Your task to perform on an android device: turn smart compose on in the gmail app Image 0: 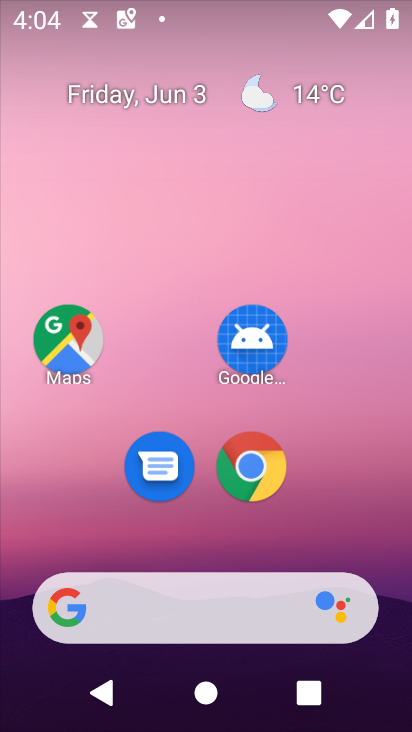
Step 0: drag from (335, 505) to (340, 53)
Your task to perform on an android device: turn smart compose on in the gmail app Image 1: 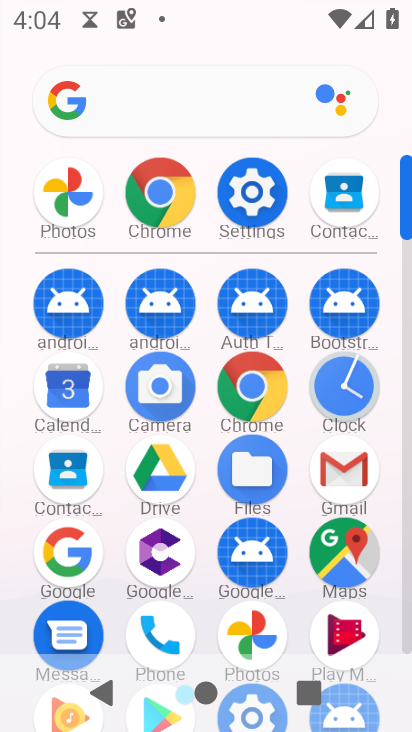
Step 1: click (352, 488)
Your task to perform on an android device: turn smart compose on in the gmail app Image 2: 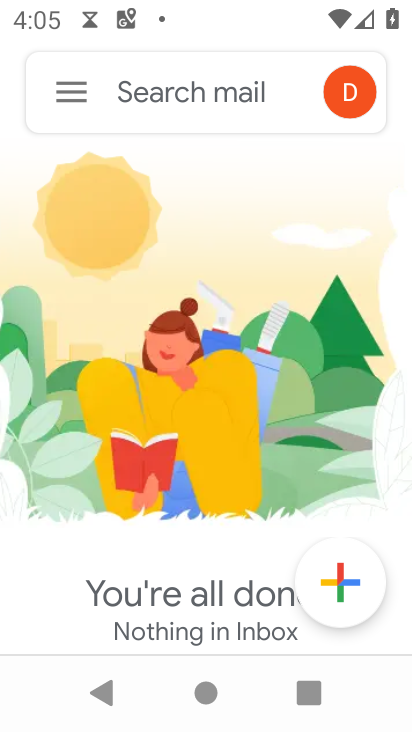
Step 2: click (70, 86)
Your task to perform on an android device: turn smart compose on in the gmail app Image 3: 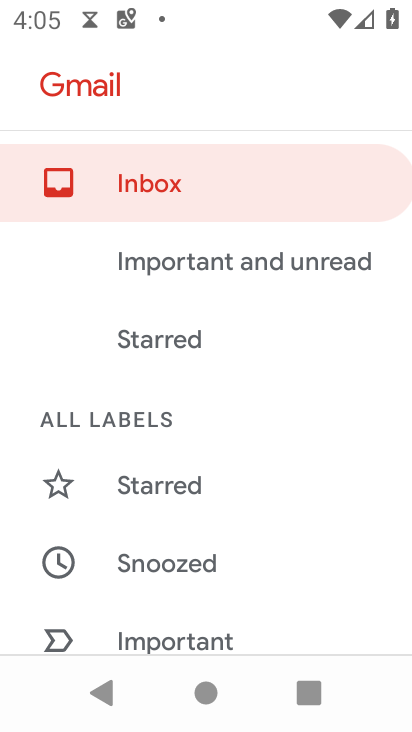
Step 3: drag from (199, 622) to (199, 111)
Your task to perform on an android device: turn smart compose on in the gmail app Image 4: 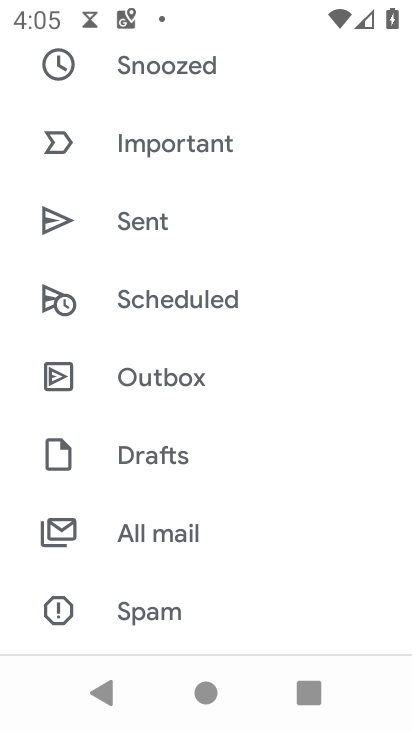
Step 4: drag from (172, 627) to (195, 14)
Your task to perform on an android device: turn smart compose on in the gmail app Image 5: 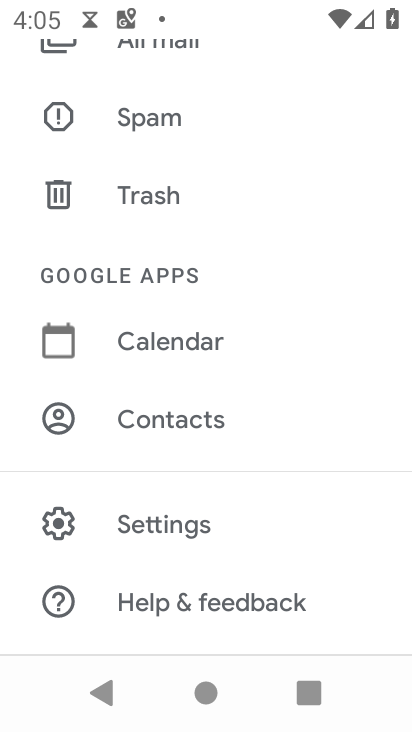
Step 5: click (174, 524)
Your task to perform on an android device: turn smart compose on in the gmail app Image 6: 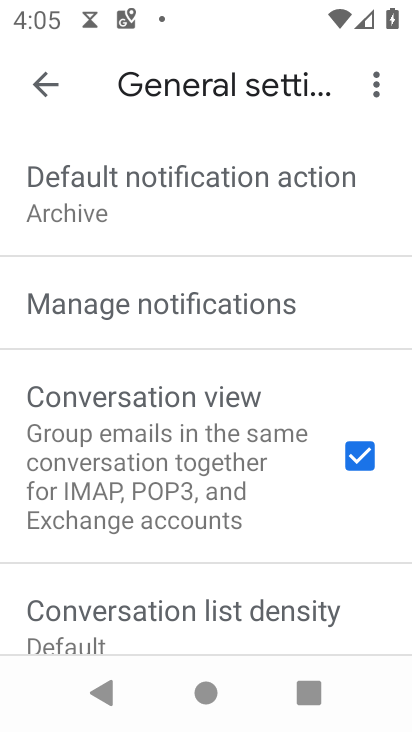
Step 6: drag from (174, 630) to (195, 90)
Your task to perform on an android device: turn smart compose on in the gmail app Image 7: 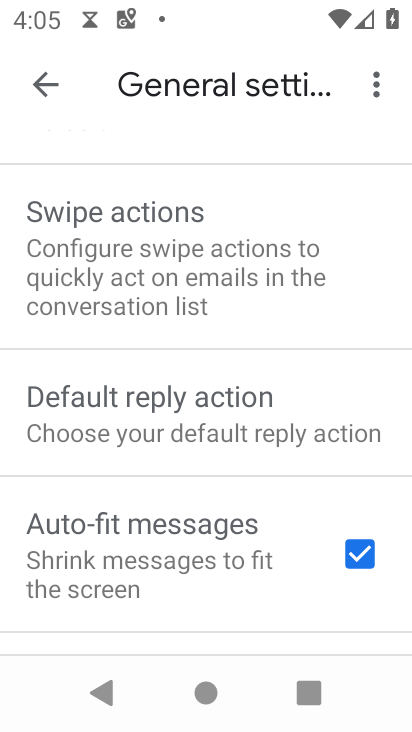
Step 7: drag from (226, 637) to (236, 96)
Your task to perform on an android device: turn smart compose on in the gmail app Image 8: 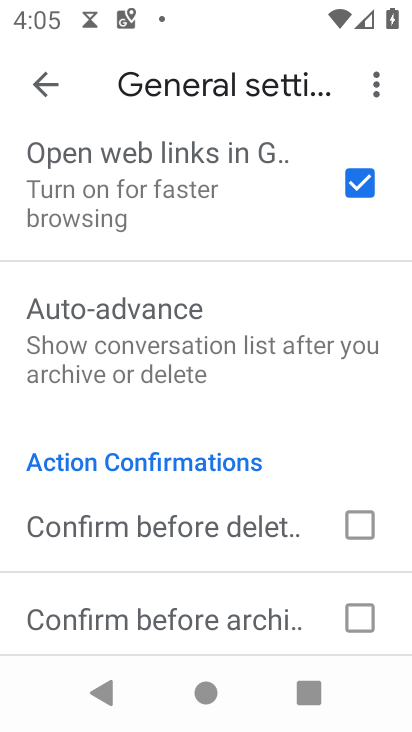
Step 8: drag from (145, 624) to (209, 116)
Your task to perform on an android device: turn smart compose on in the gmail app Image 9: 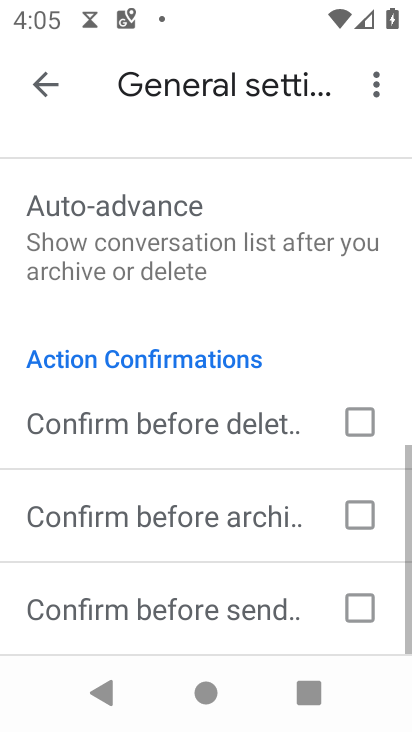
Step 9: drag from (152, 603) to (178, 111)
Your task to perform on an android device: turn smart compose on in the gmail app Image 10: 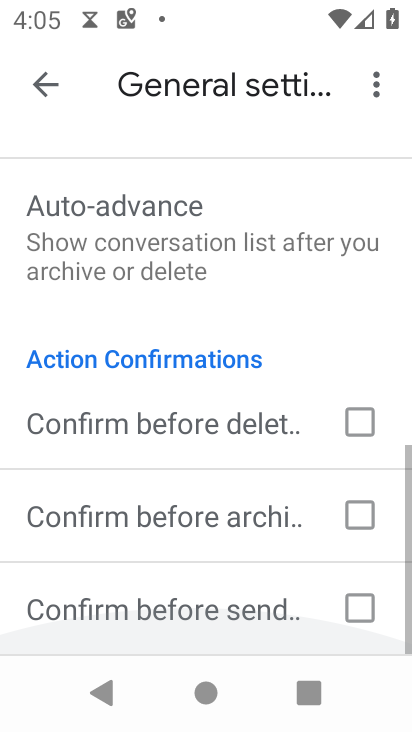
Step 10: drag from (178, 111) to (198, 661)
Your task to perform on an android device: turn smart compose on in the gmail app Image 11: 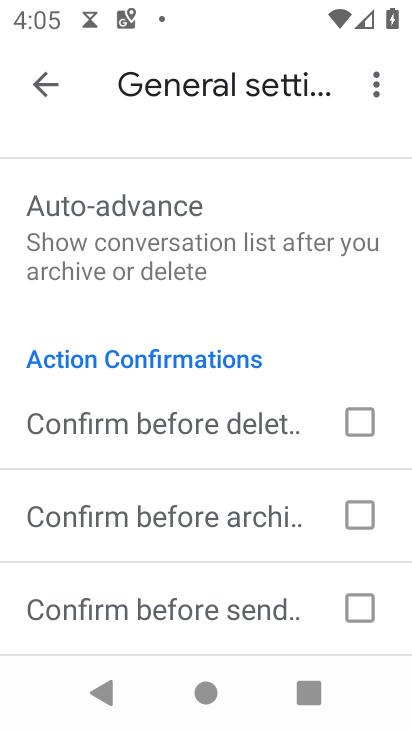
Step 11: drag from (181, 199) to (199, 635)
Your task to perform on an android device: turn smart compose on in the gmail app Image 12: 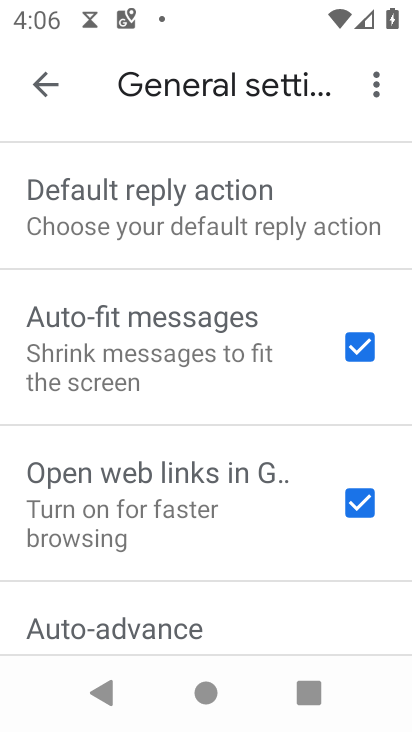
Step 12: drag from (251, 216) to (238, 627)
Your task to perform on an android device: turn smart compose on in the gmail app Image 13: 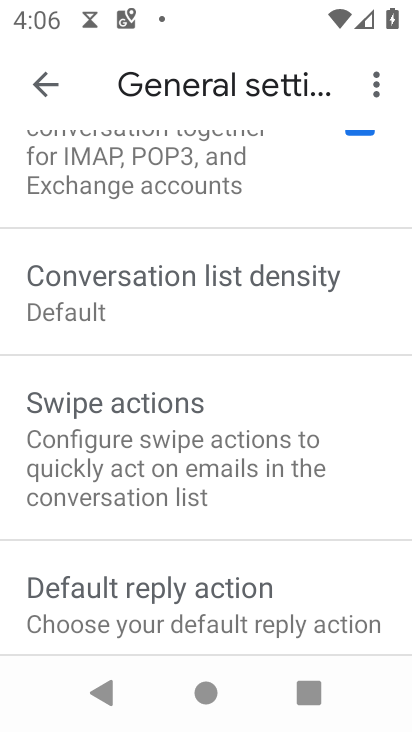
Step 13: drag from (200, 178) to (295, 649)
Your task to perform on an android device: turn smart compose on in the gmail app Image 14: 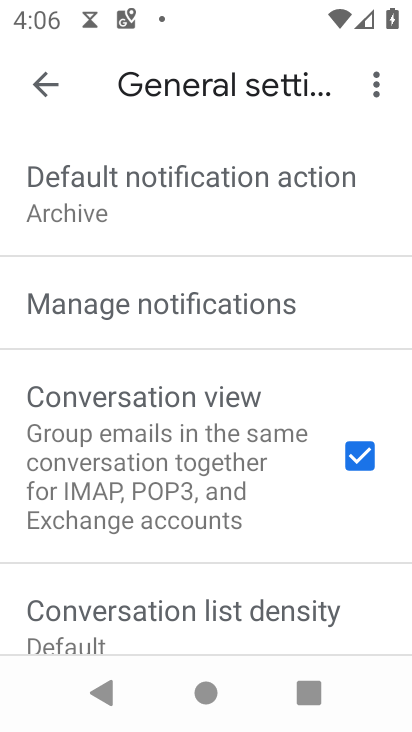
Step 14: click (41, 79)
Your task to perform on an android device: turn smart compose on in the gmail app Image 15: 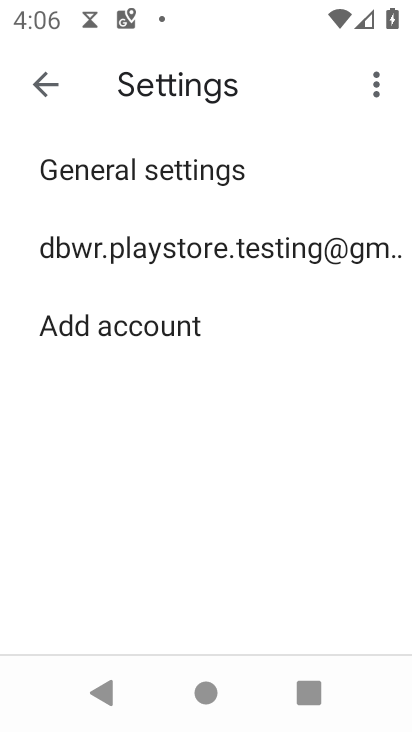
Step 15: click (116, 241)
Your task to perform on an android device: turn smart compose on in the gmail app Image 16: 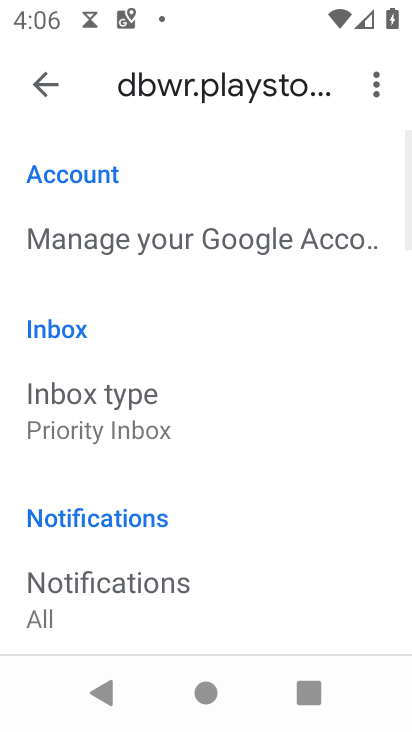
Step 16: task complete